Your task to perform on an android device: Clear the shopping cart on amazon. Search for "razer blade" on amazon, select the first entry, and add it to the cart. Image 0: 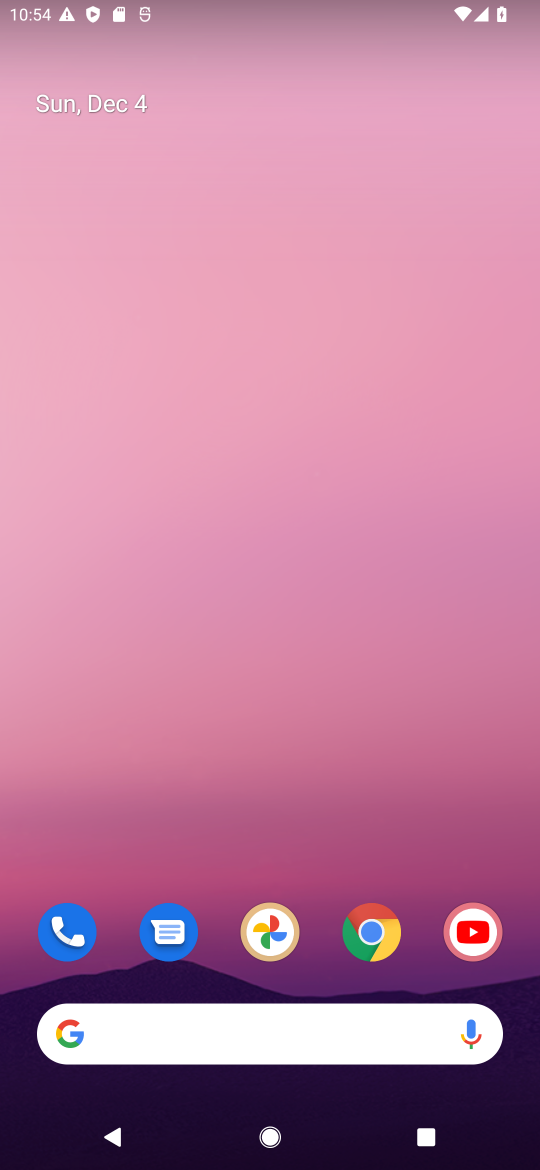
Step 0: click (364, 933)
Your task to perform on an android device: Clear the shopping cart on amazon. Search for "razer blade" on amazon, select the first entry, and add it to the cart. Image 1: 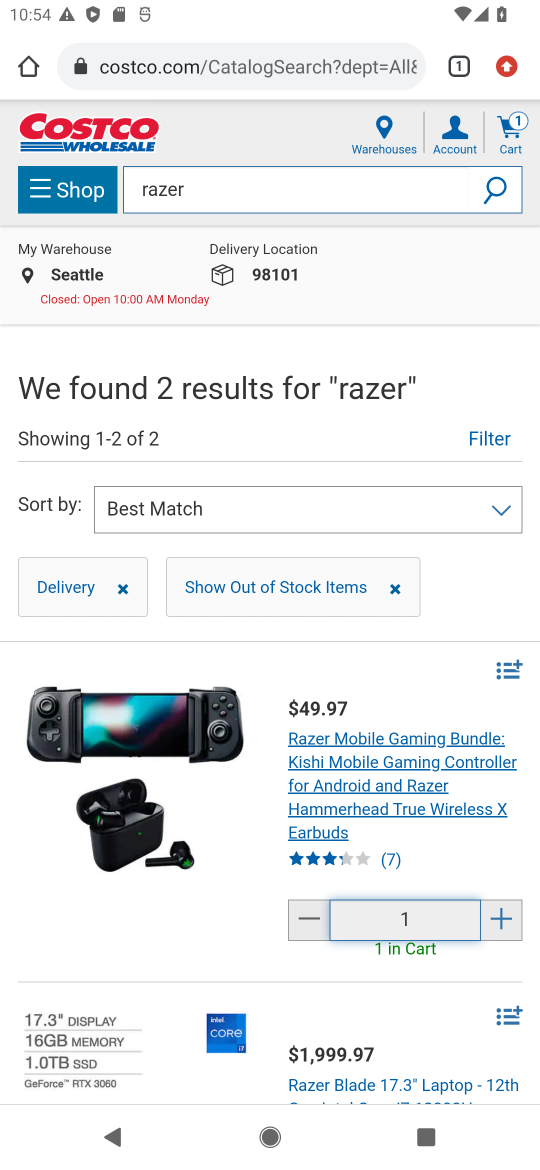
Step 1: click (289, 57)
Your task to perform on an android device: Clear the shopping cart on amazon. Search for "razer blade" on amazon, select the first entry, and add it to the cart. Image 2: 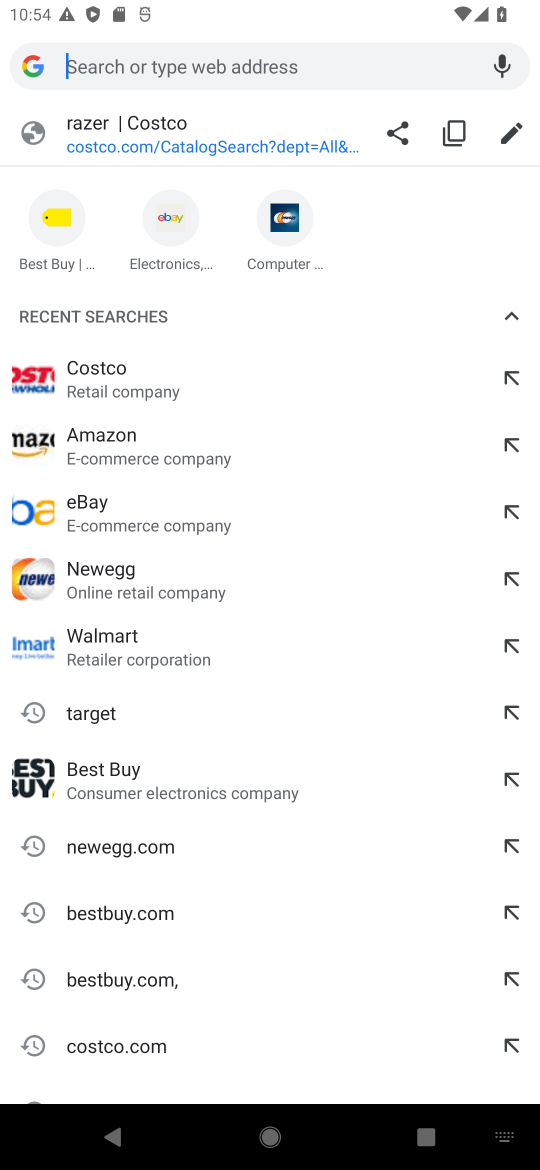
Step 2: click (150, 451)
Your task to perform on an android device: Clear the shopping cart on amazon. Search for "razer blade" on amazon, select the first entry, and add it to the cart. Image 3: 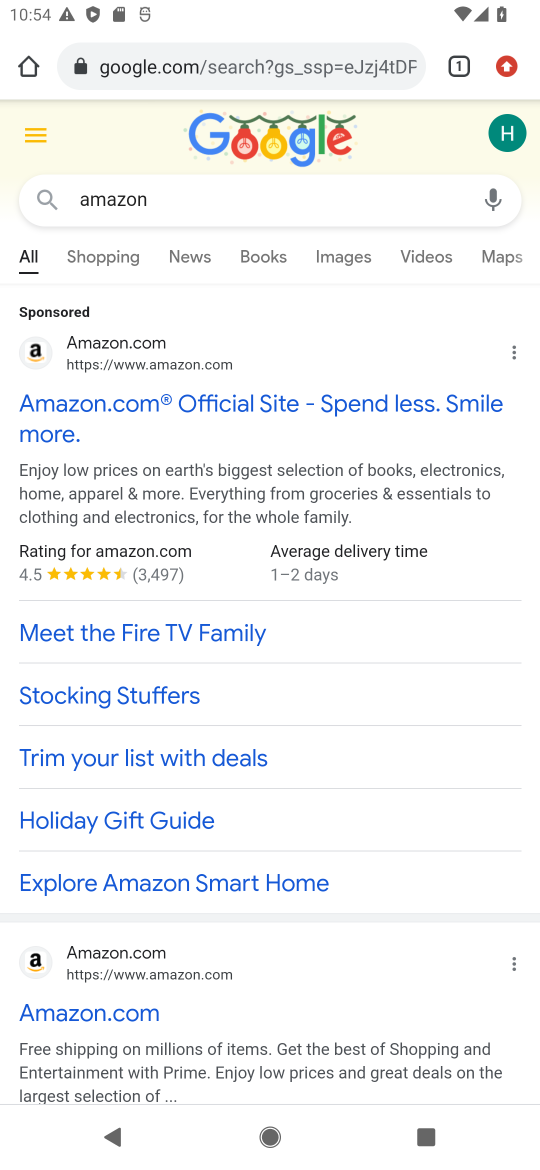
Step 3: click (224, 404)
Your task to perform on an android device: Clear the shopping cart on amazon. Search for "razer blade" on amazon, select the first entry, and add it to the cart. Image 4: 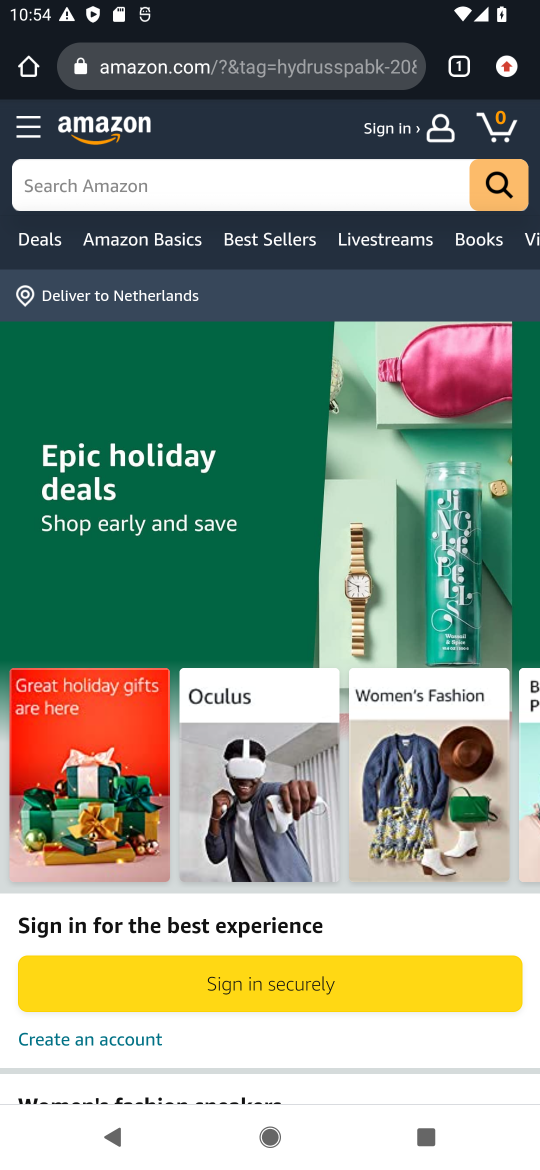
Step 4: click (387, 189)
Your task to perform on an android device: Clear the shopping cart on amazon. Search for "razer blade" on amazon, select the first entry, and add it to the cart. Image 5: 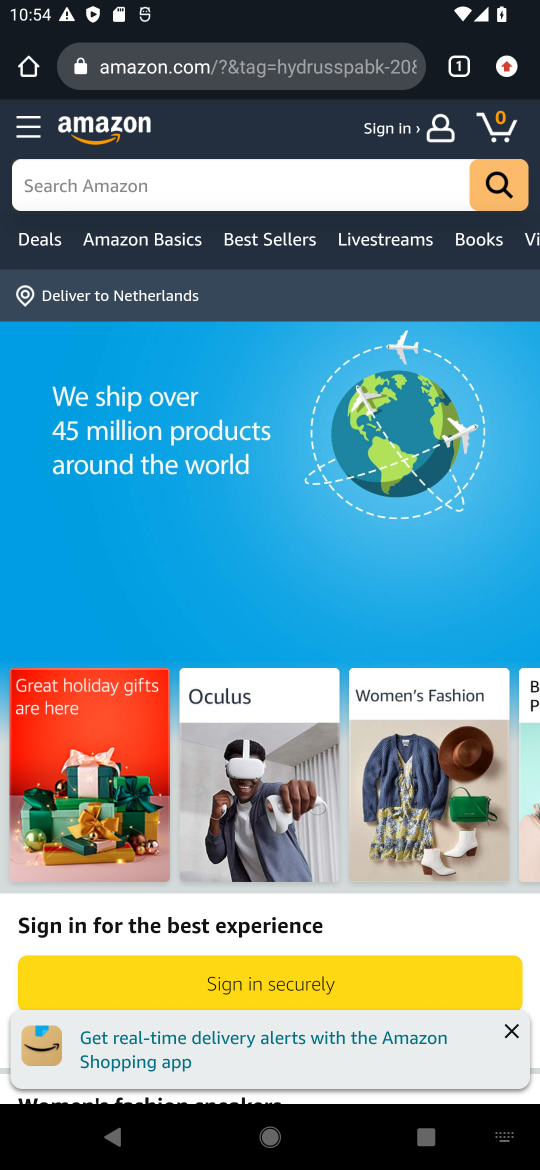
Step 5: type "razer blade"
Your task to perform on an android device: Clear the shopping cart on amazon. Search for "razer blade" on amazon, select the first entry, and add it to the cart. Image 6: 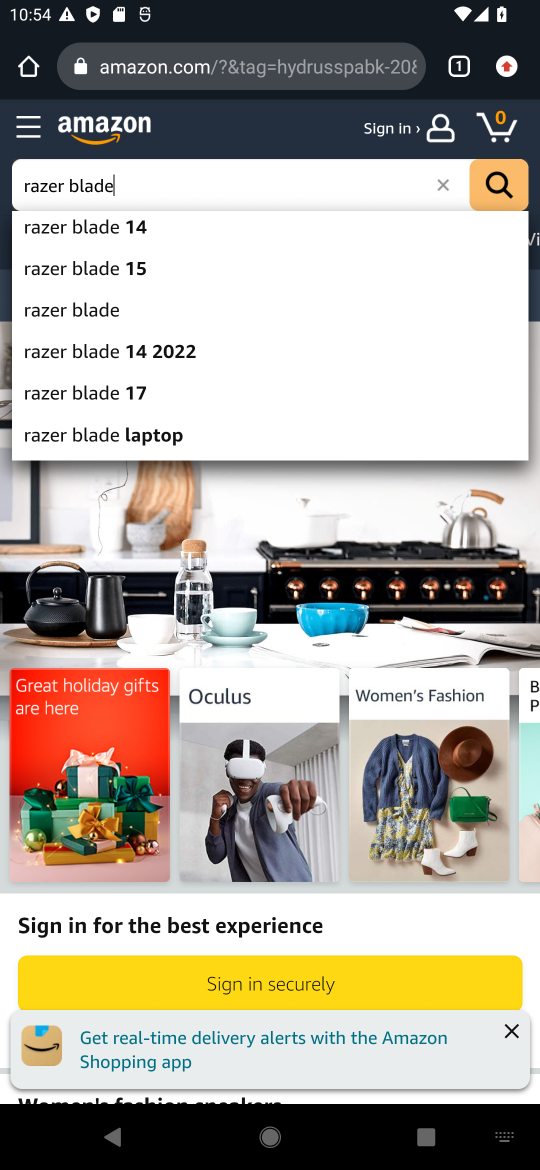
Step 6: click (114, 229)
Your task to perform on an android device: Clear the shopping cart on amazon. Search for "razer blade" on amazon, select the first entry, and add it to the cart. Image 7: 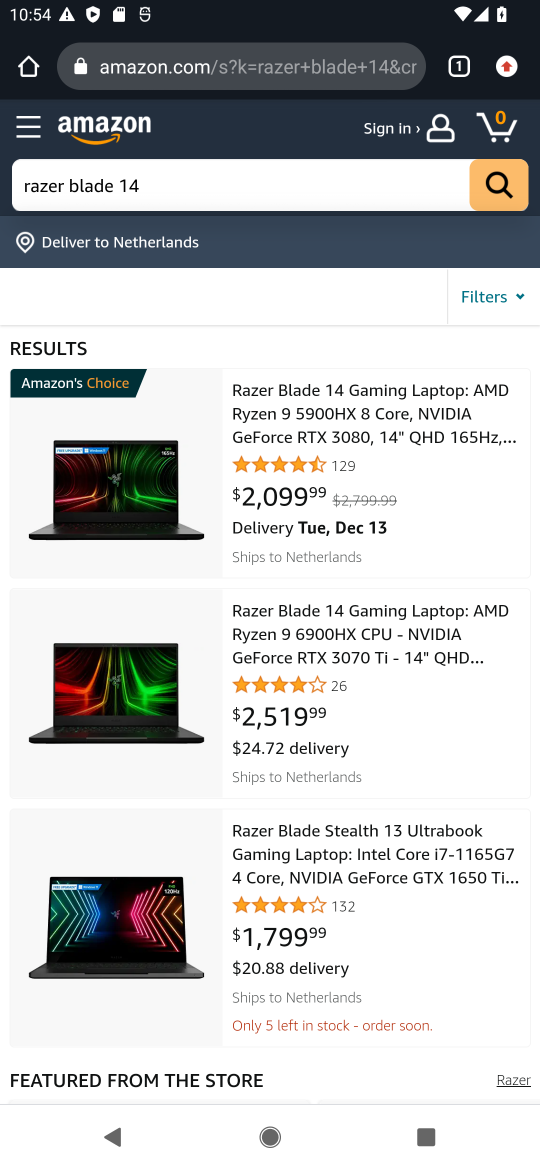
Step 7: click (184, 469)
Your task to perform on an android device: Clear the shopping cart on amazon. Search for "razer blade" on amazon, select the first entry, and add it to the cart. Image 8: 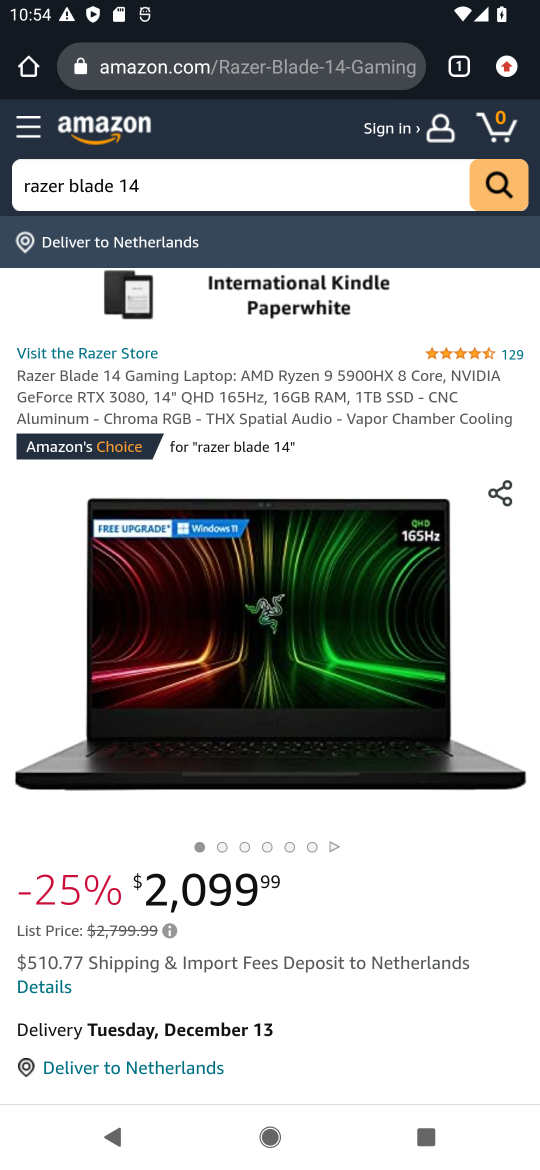
Step 8: drag from (331, 936) to (380, 335)
Your task to perform on an android device: Clear the shopping cart on amazon. Search for "razer blade" on amazon, select the first entry, and add it to the cart. Image 9: 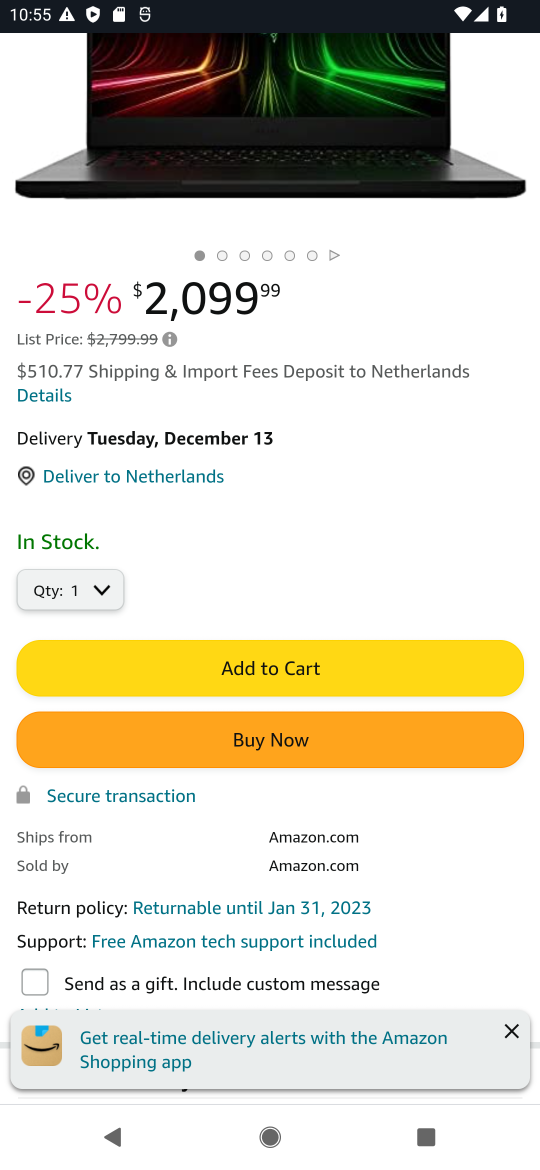
Step 9: click (290, 663)
Your task to perform on an android device: Clear the shopping cart on amazon. Search for "razer blade" on amazon, select the first entry, and add it to the cart. Image 10: 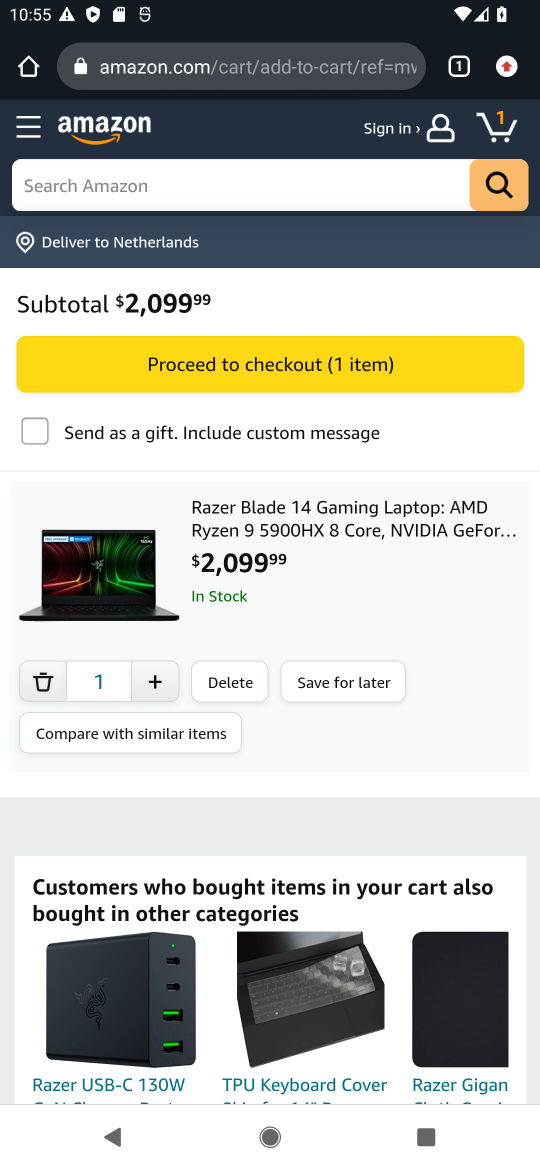
Step 10: click (305, 370)
Your task to perform on an android device: Clear the shopping cart on amazon. Search for "razer blade" on amazon, select the first entry, and add it to the cart. Image 11: 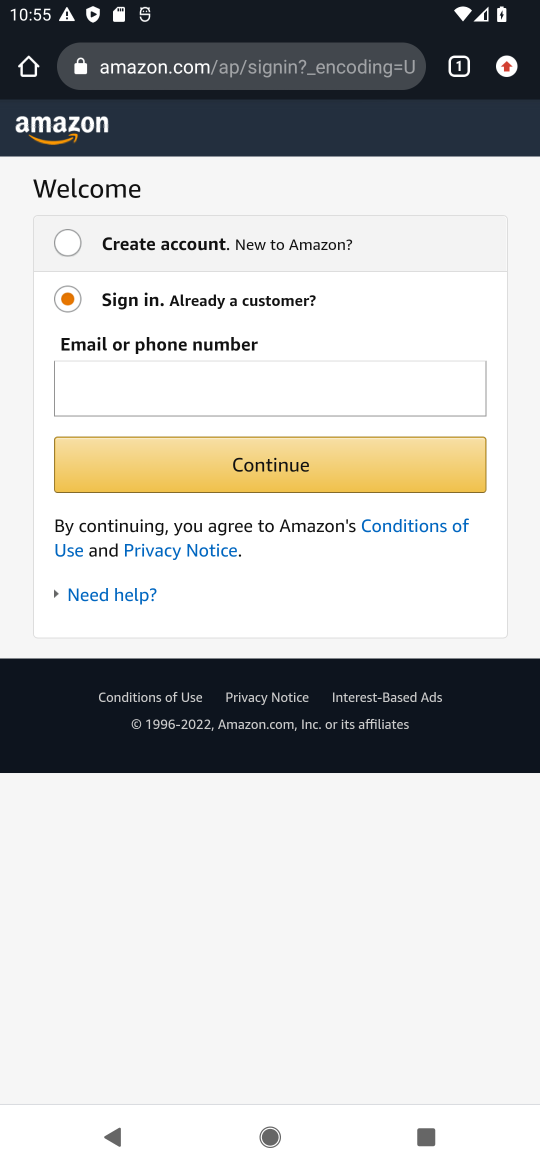
Step 11: task complete